Your task to perform on an android device: Go to Reddit.com Image 0: 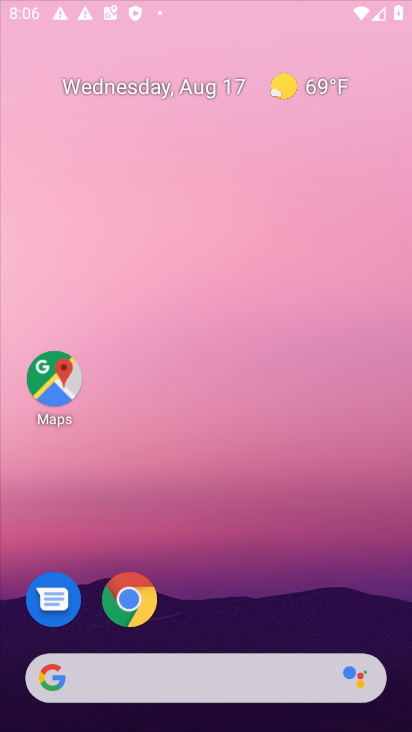
Step 0: press home button
Your task to perform on an android device: Go to Reddit.com Image 1: 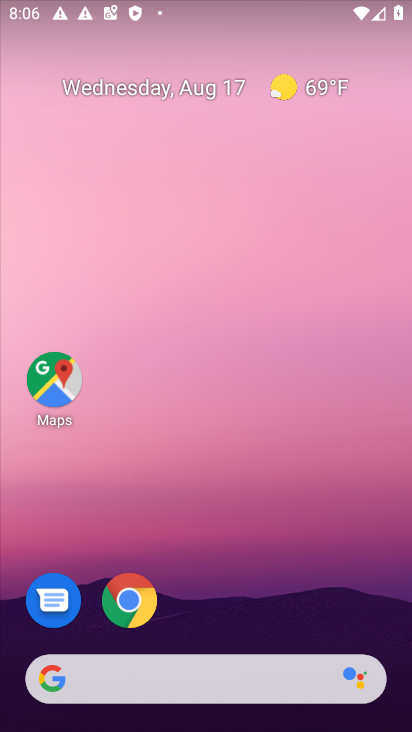
Step 1: click (35, 678)
Your task to perform on an android device: Go to Reddit.com Image 2: 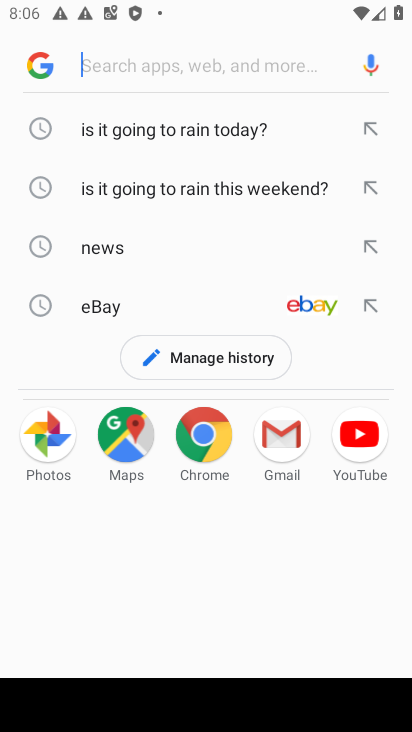
Step 2: type " Reddit.com"
Your task to perform on an android device: Go to Reddit.com Image 3: 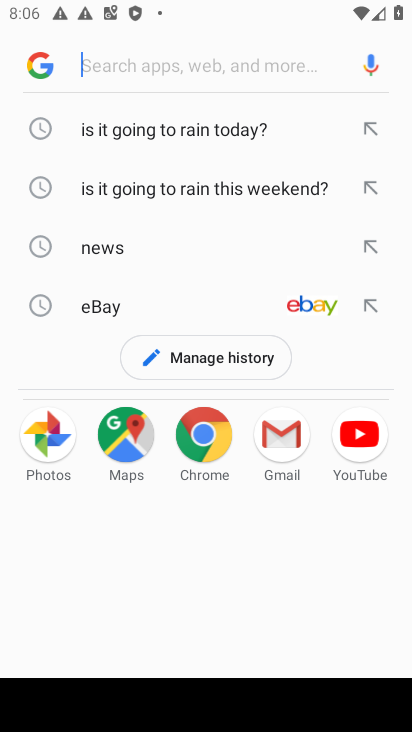
Step 3: click (126, 57)
Your task to perform on an android device: Go to Reddit.com Image 4: 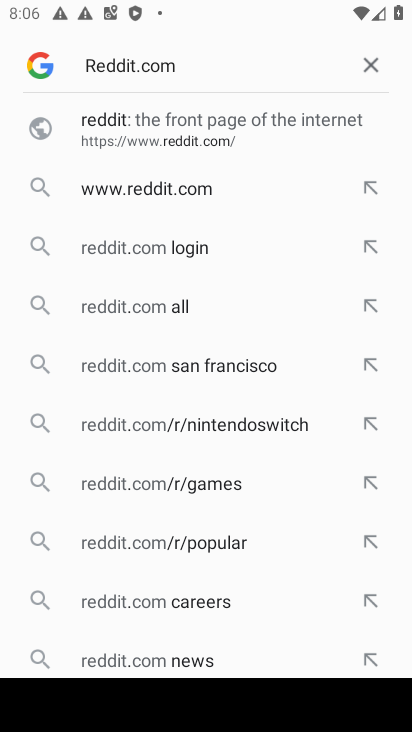
Step 4: press enter
Your task to perform on an android device: Go to Reddit.com Image 5: 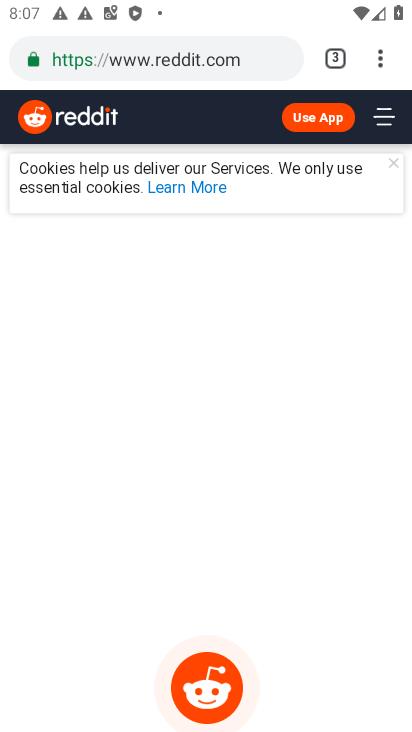
Step 5: task complete